Your task to perform on an android device: Show me recent news Image 0: 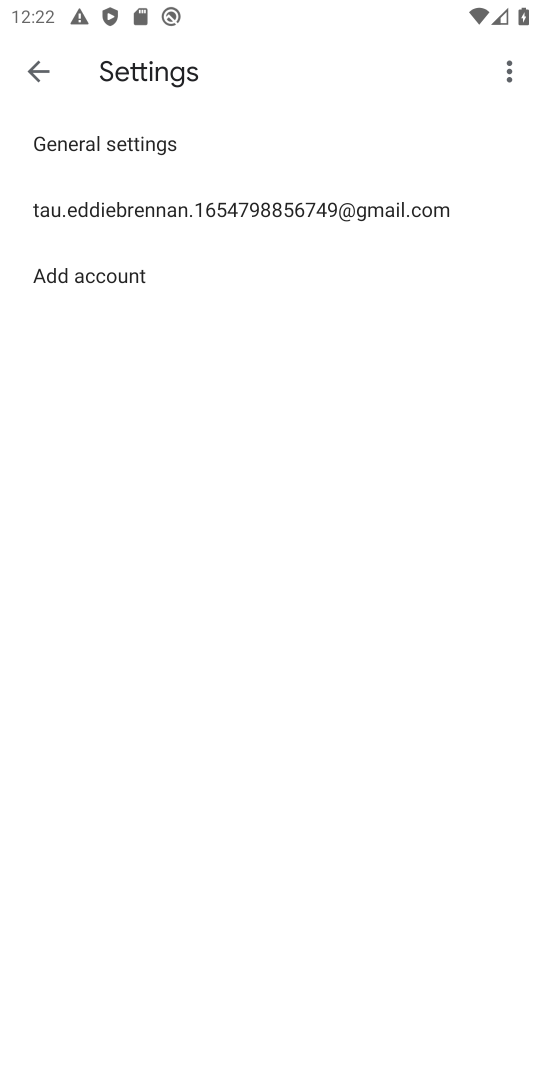
Step 0: press home button
Your task to perform on an android device: Show me recent news Image 1: 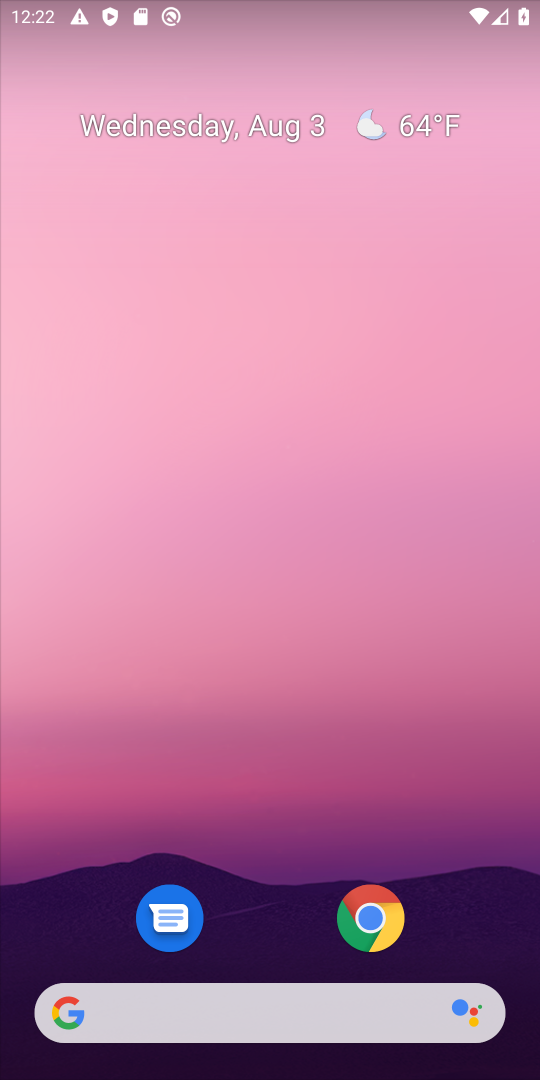
Step 1: click (293, 1025)
Your task to perform on an android device: Show me recent news Image 2: 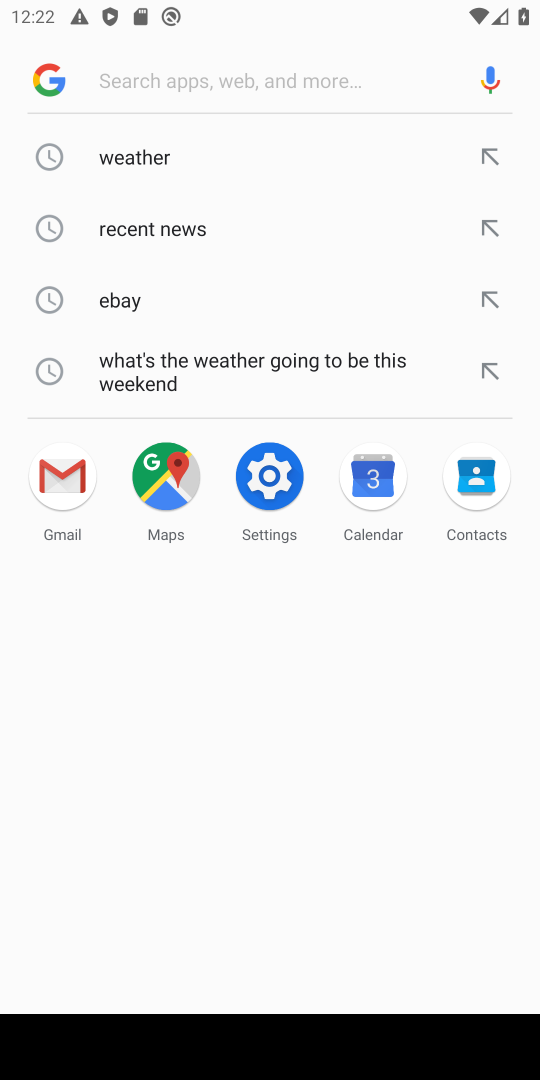
Step 2: click (174, 228)
Your task to perform on an android device: Show me recent news Image 3: 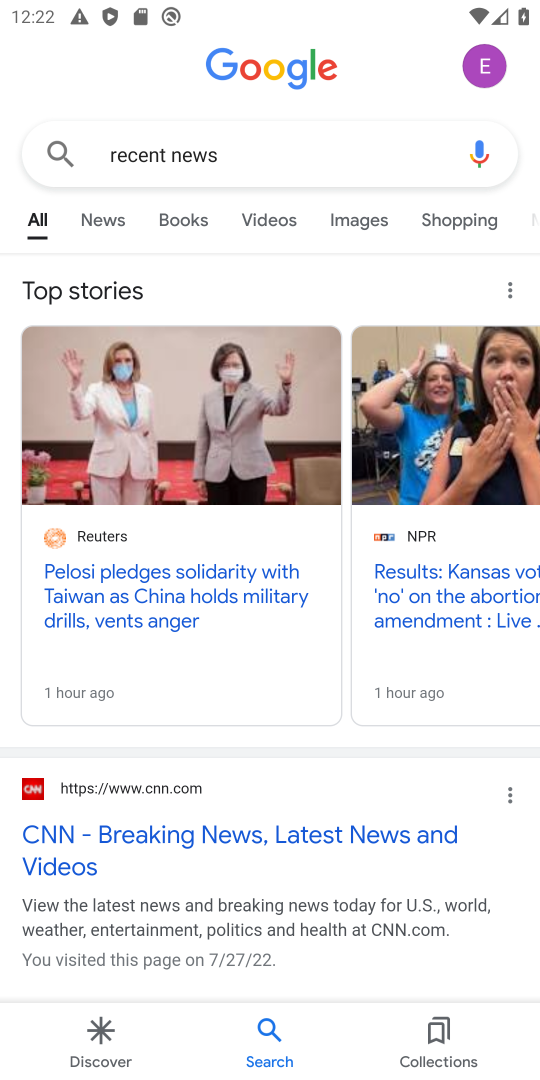
Step 3: drag from (453, 440) to (239, 392)
Your task to perform on an android device: Show me recent news Image 4: 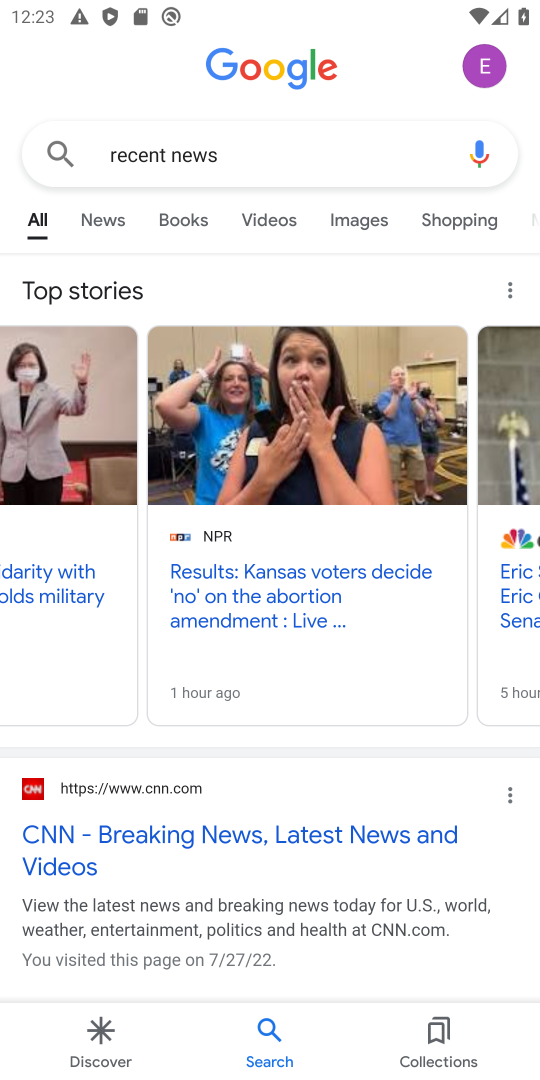
Step 4: drag from (397, 449) to (139, 400)
Your task to perform on an android device: Show me recent news Image 5: 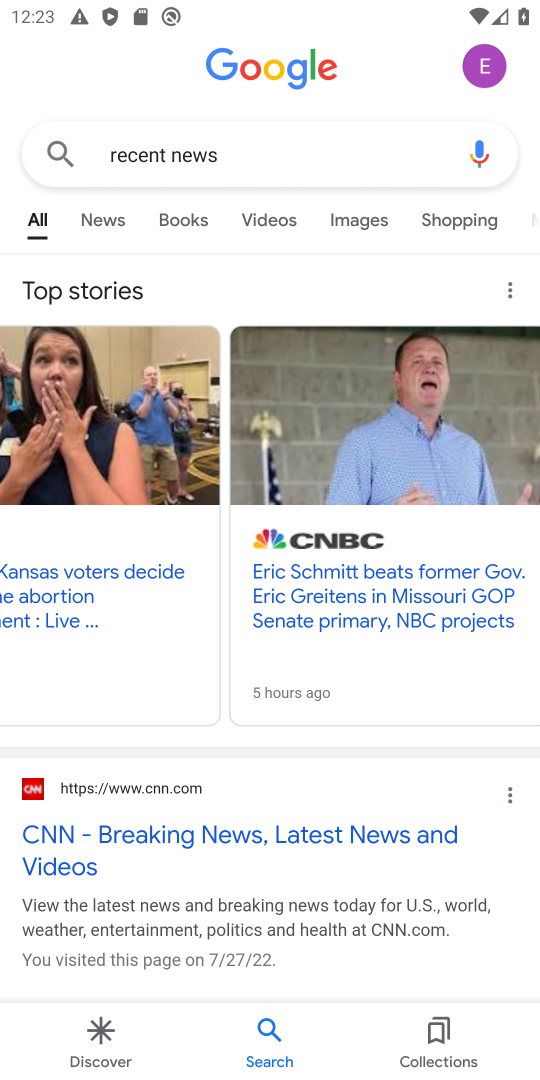
Step 5: drag from (483, 432) to (118, 453)
Your task to perform on an android device: Show me recent news Image 6: 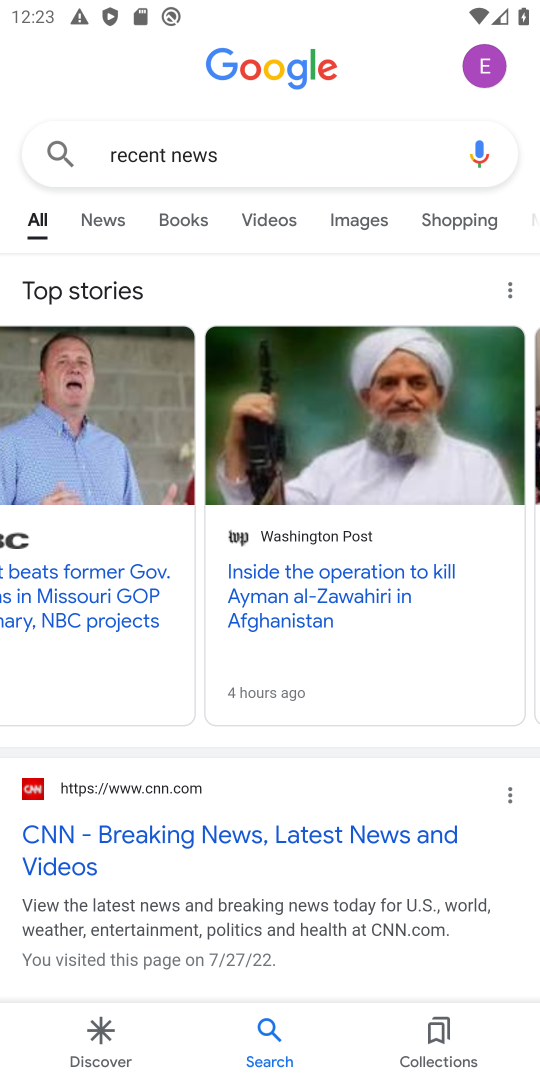
Step 6: click (375, 589)
Your task to perform on an android device: Show me recent news Image 7: 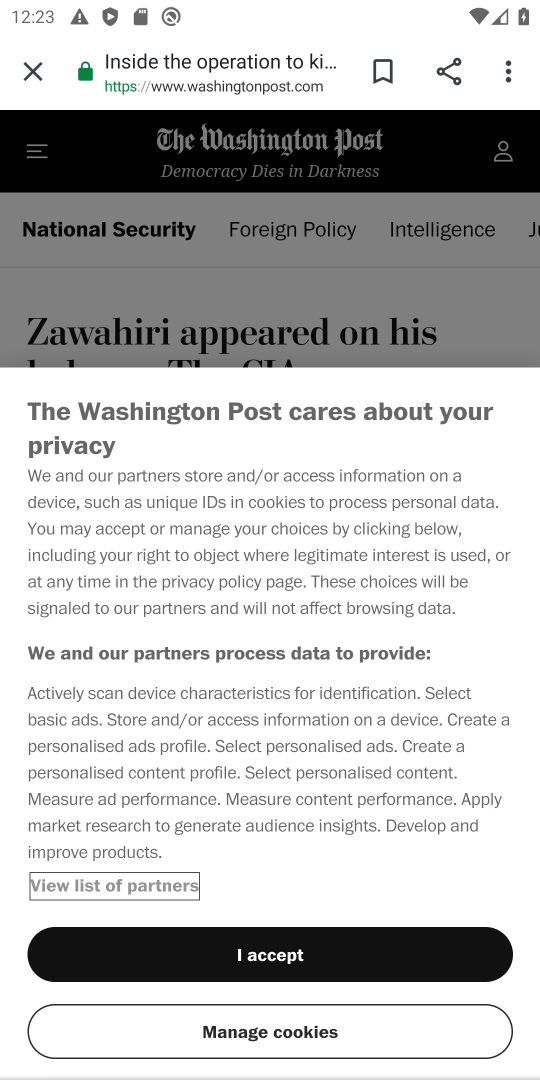
Step 7: click (345, 940)
Your task to perform on an android device: Show me recent news Image 8: 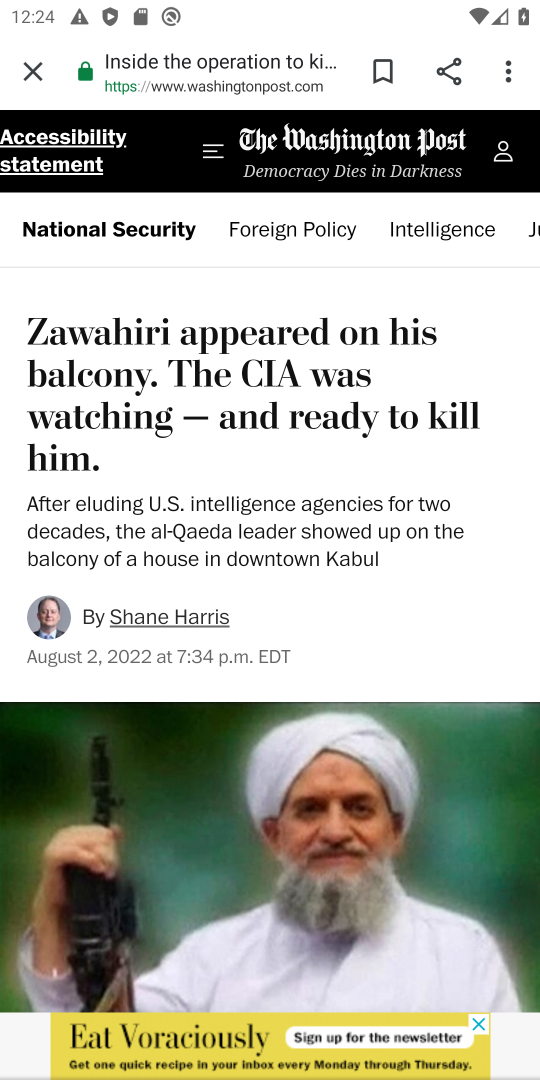
Step 8: task complete